Your task to perform on an android device: open device folders in google photos Image 0: 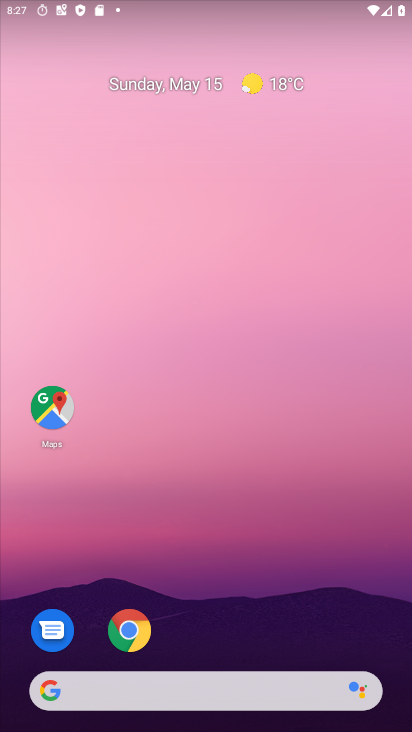
Step 0: drag from (205, 645) to (139, 75)
Your task to perform on an android device: open device folders in google photos Image 1: 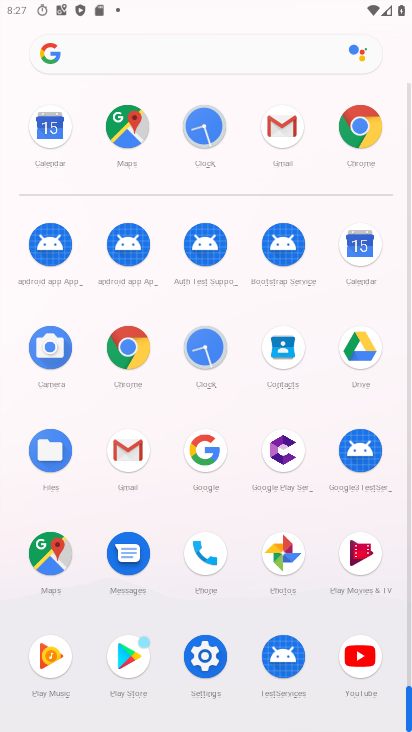
Step 1: click (285, 543)
Your task to perform on an android device: open device folders in google photos Image 2: 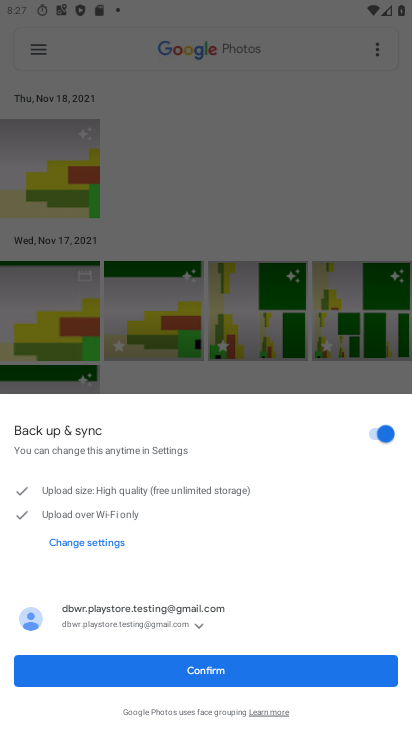
Step 2: click (188, 674)
Your task to perform on an android device: open device folders in google photos Image 3: 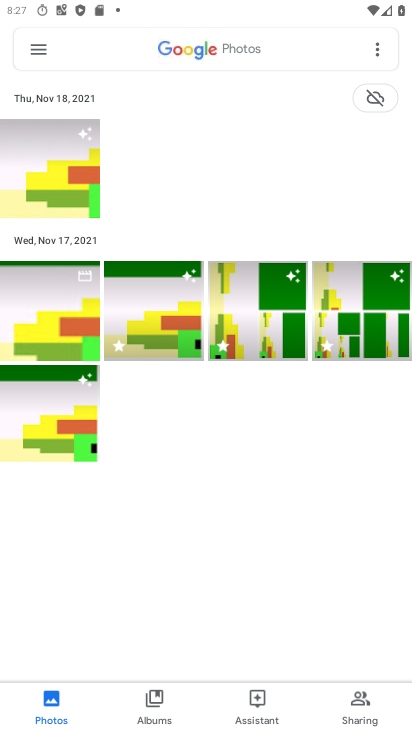
Step 3: click (30, 62)
Your task to perform on an android device: open device folders in google photos Image 4: 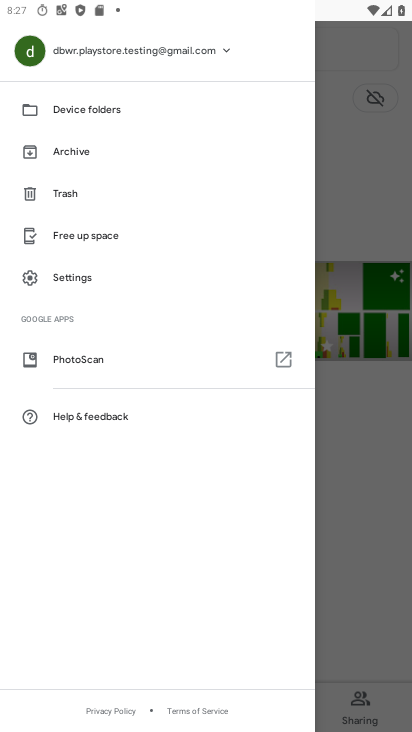
Step 4: click (130, 120)
Your task to perform on an android device: open device folders in google photos Image 5: 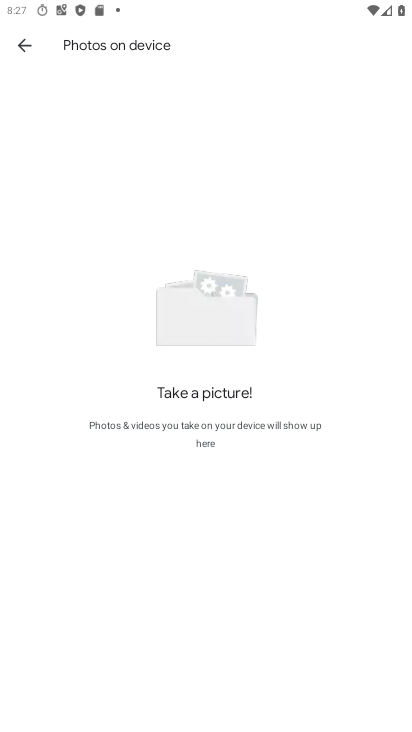
Step 5: task complete